Your task to perform on an android device: Go to network settings Image 0: 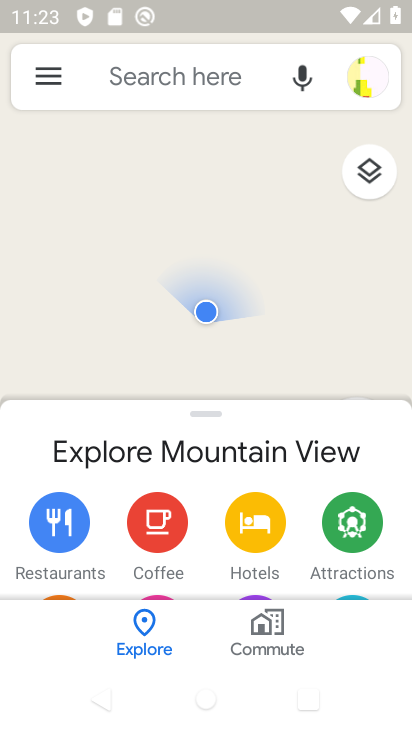
Step 0: press back button
Your task to perform on an android device: Go to network settings Image 1: 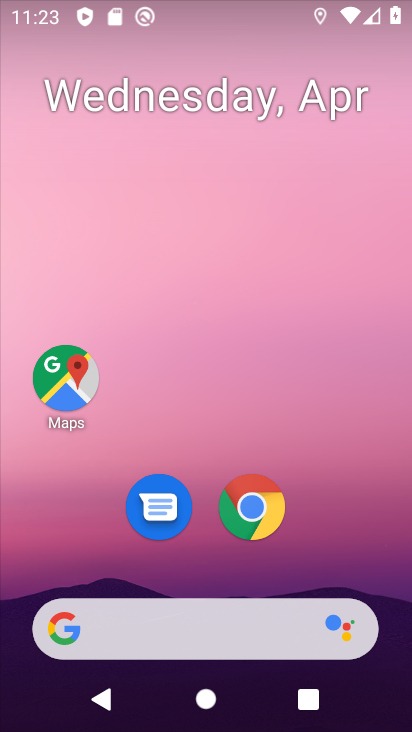
Step 1: drag from (359, 530) to (312, 112)
Your task to perform on an android device: Go to network settings Image 2: 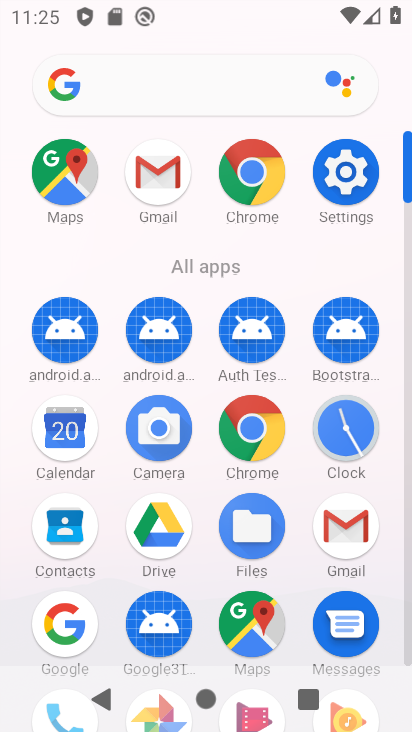
Step 2: click (335, 183)
Your task to perform on an android device: Go to network settings Image 3: 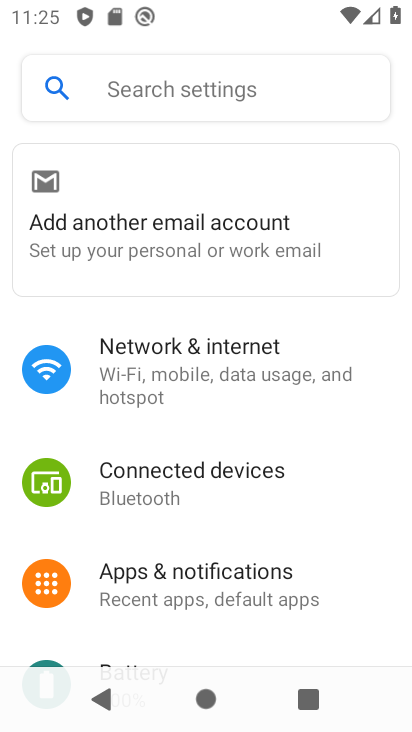
Step 3: click (156, 387)
Your task to perform on an android device: Go to network settings Image 4: 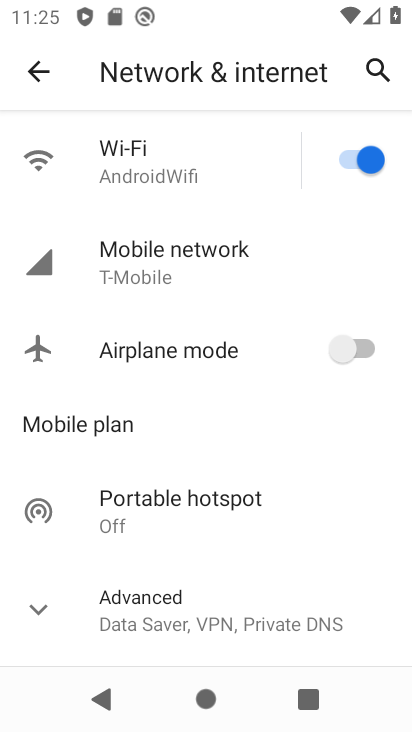
Step 4: task complete